Your task to perform on an android device: What's the weather? Image 0: 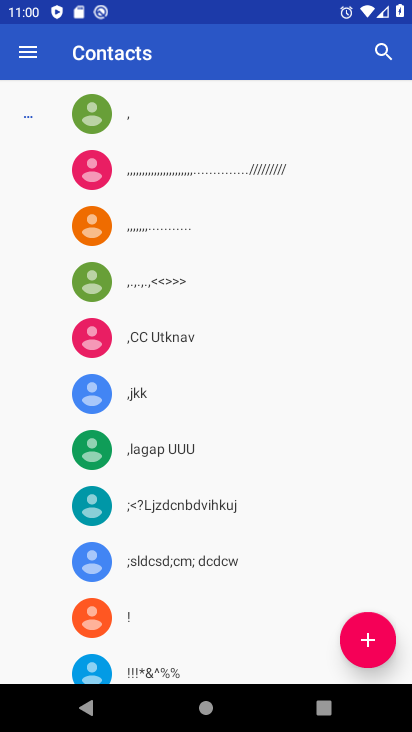
Step 0: press home button
Your task to perform on an android device: What's the weather? Image 1: 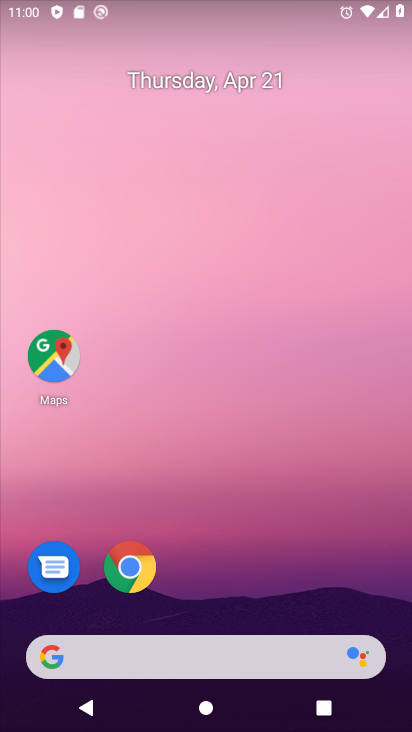
Step 1: click (187, 656)
Your task to perform on an android device: What's the weather? Image 2: 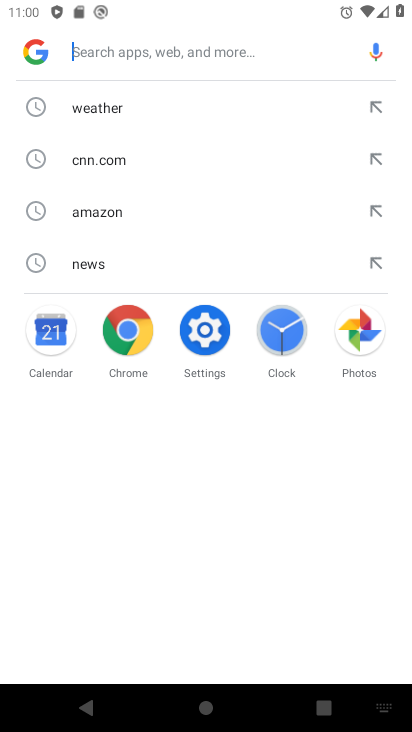
Step 2: click (76, 118)
Your task to perform on an android device: What's the weather? Image 3: 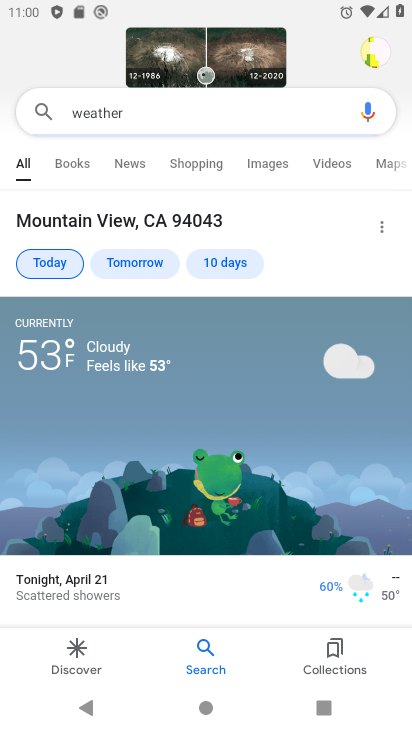
Step 3: task complete